Your task to perform on an android device: Play the latest video from the New York Times Image 0: 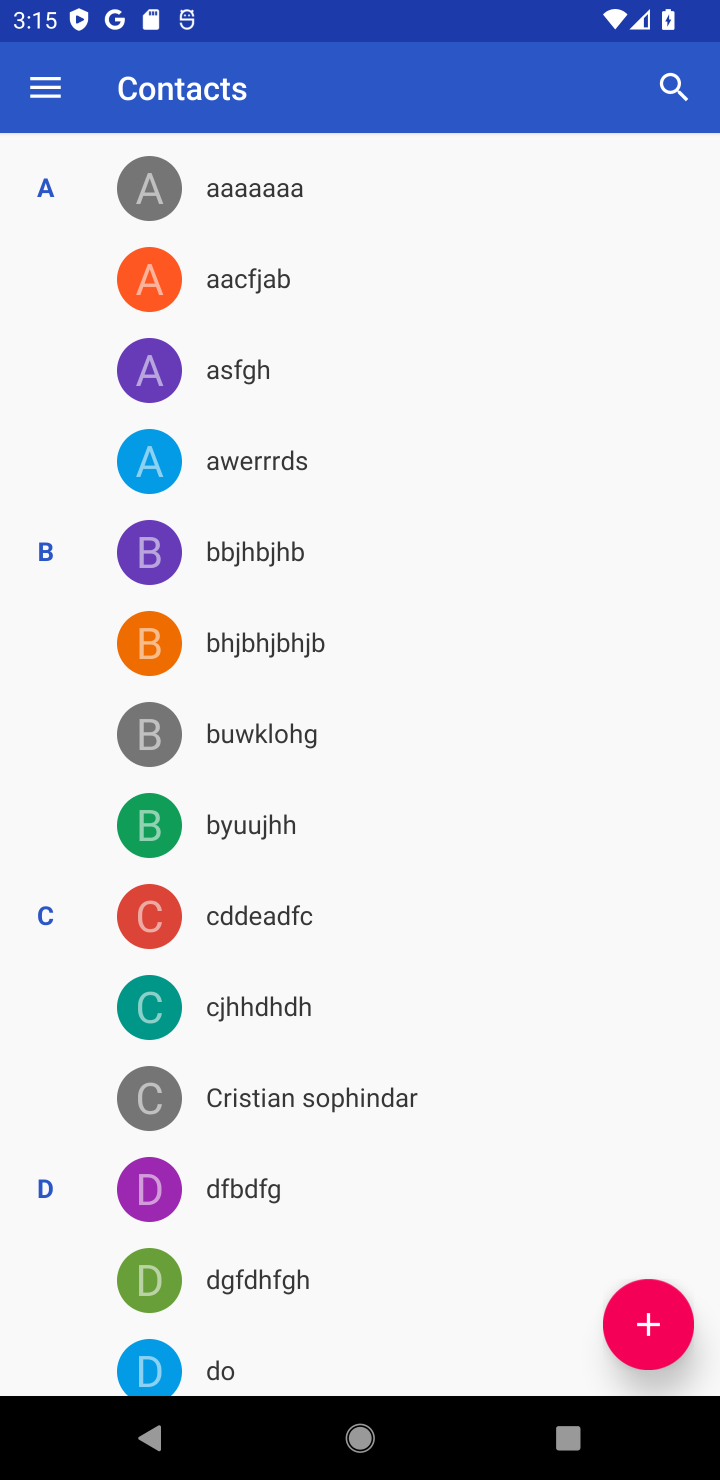
Step 0: press home button
Your task to perform on an android device: Play the latest video from the New York Times Image 1: 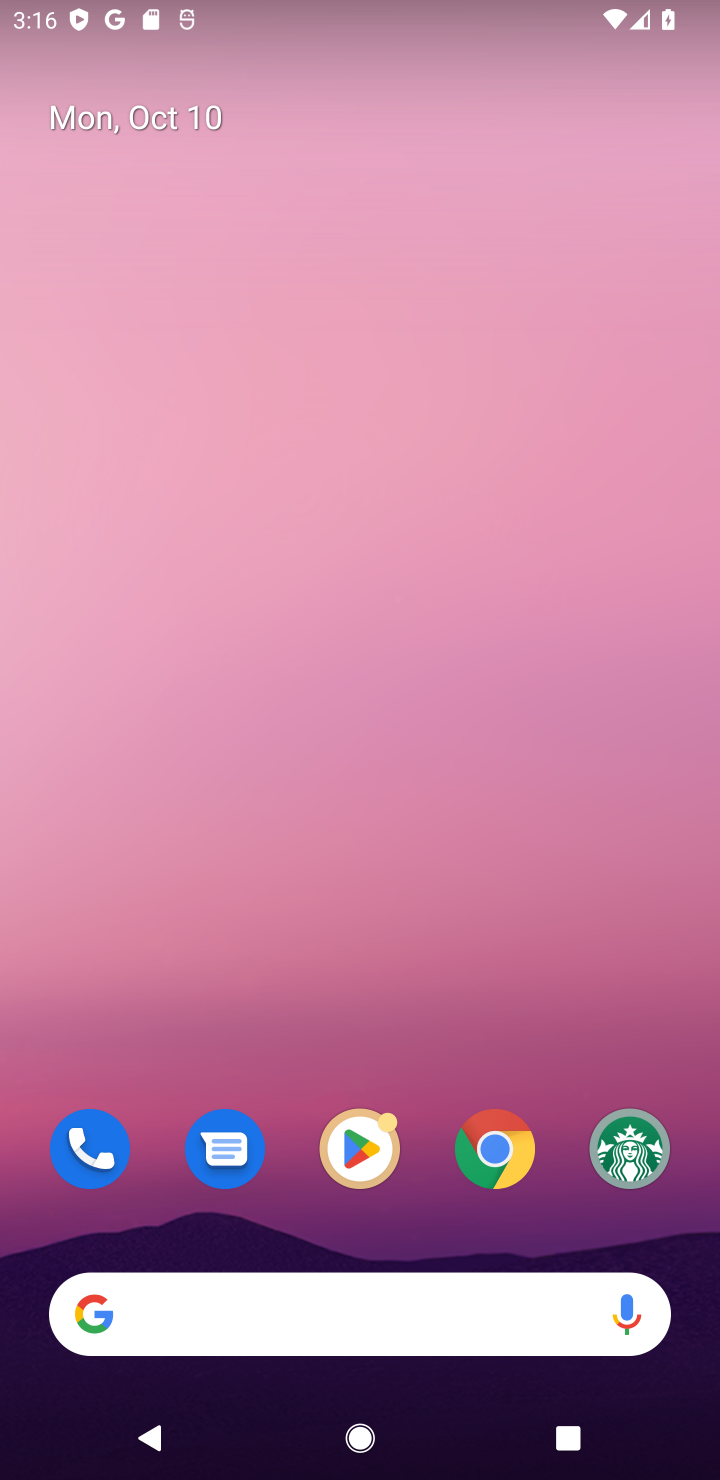
Step 1: click (176, 1288)
Your task to perform on an android device: Play the latest video from the New York Times Image 2: 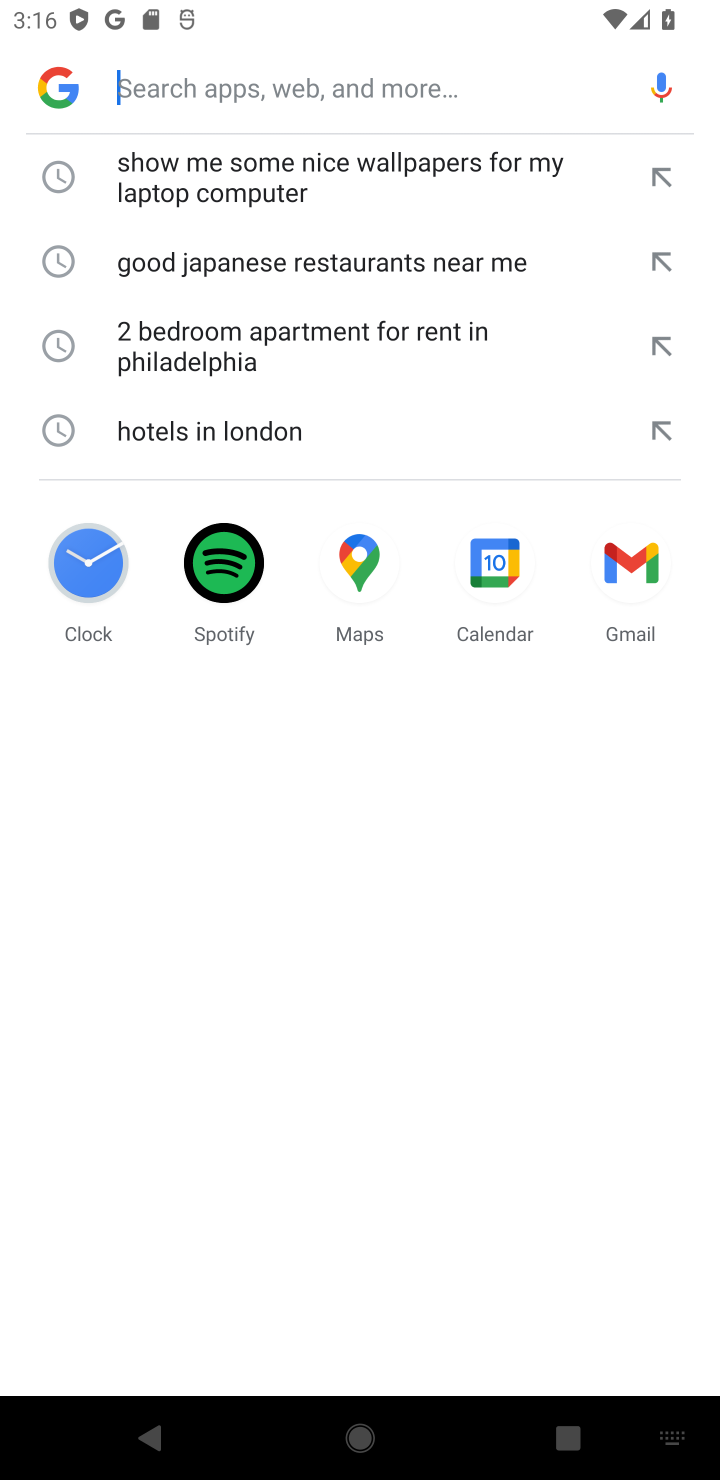
Step 2: type " latest video from the New York Times"
Your task to perform on an android device: Play the latest video from the New York Times Image 3: 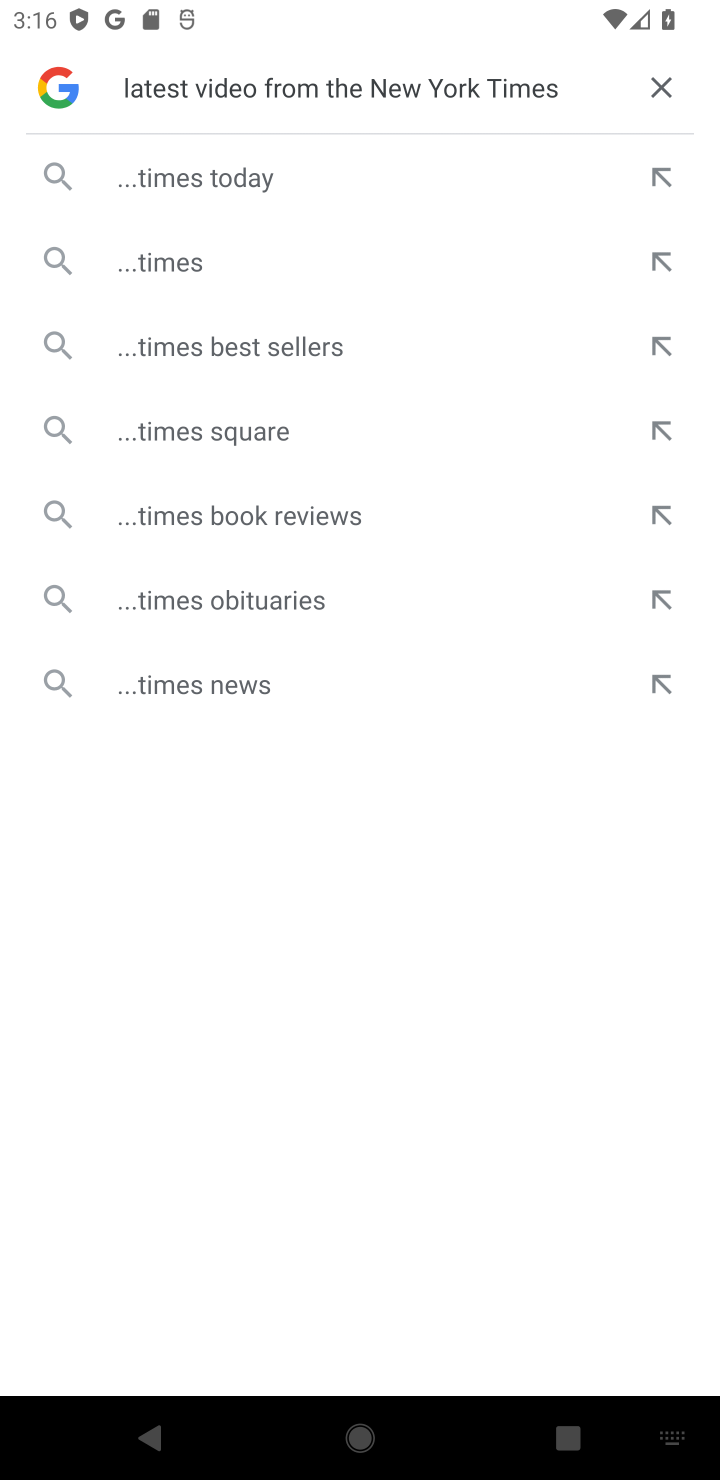
Step 3: click (395, 187)
Your task to perform on an android device: Play the latest video from the New York Times Image 4: 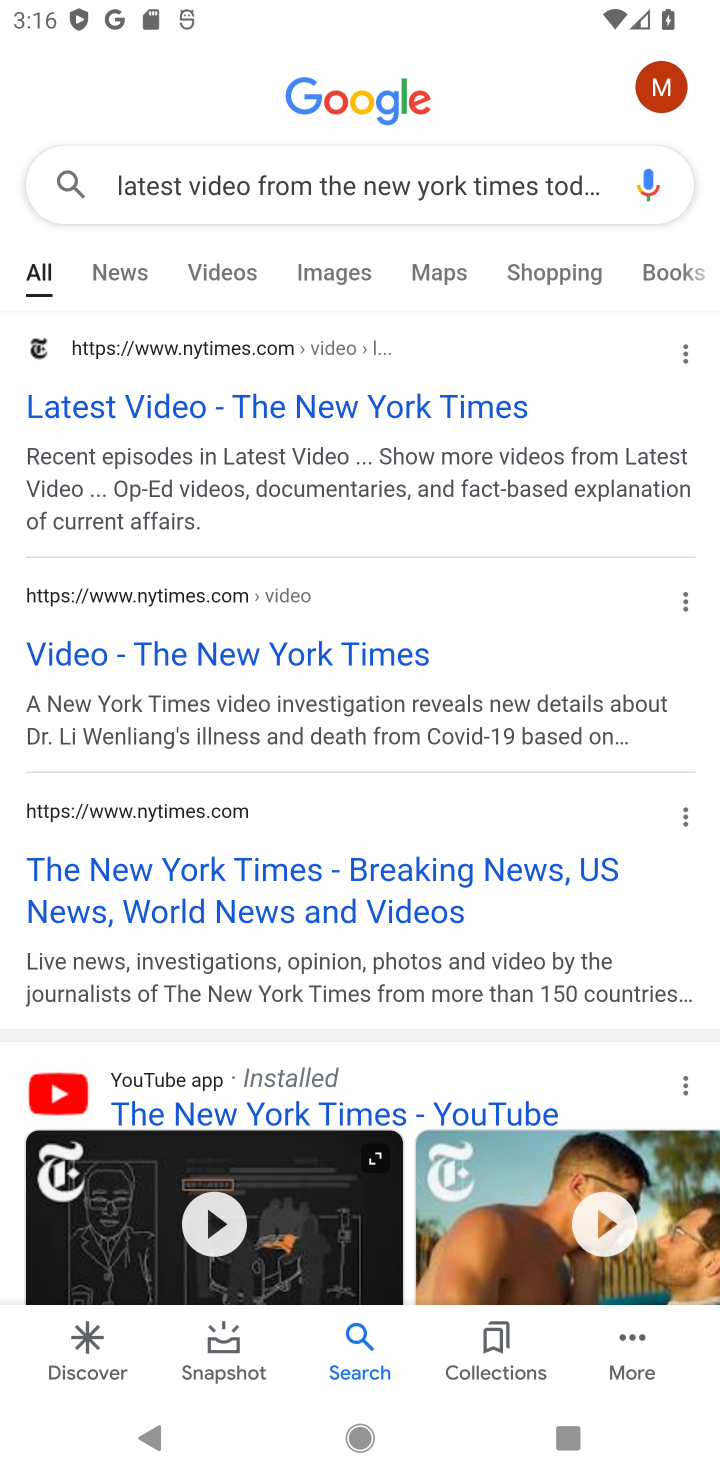
Step 4: click (425, 395)
Your task to perform on an android device: Play the latest video from the New York Times Image 5: 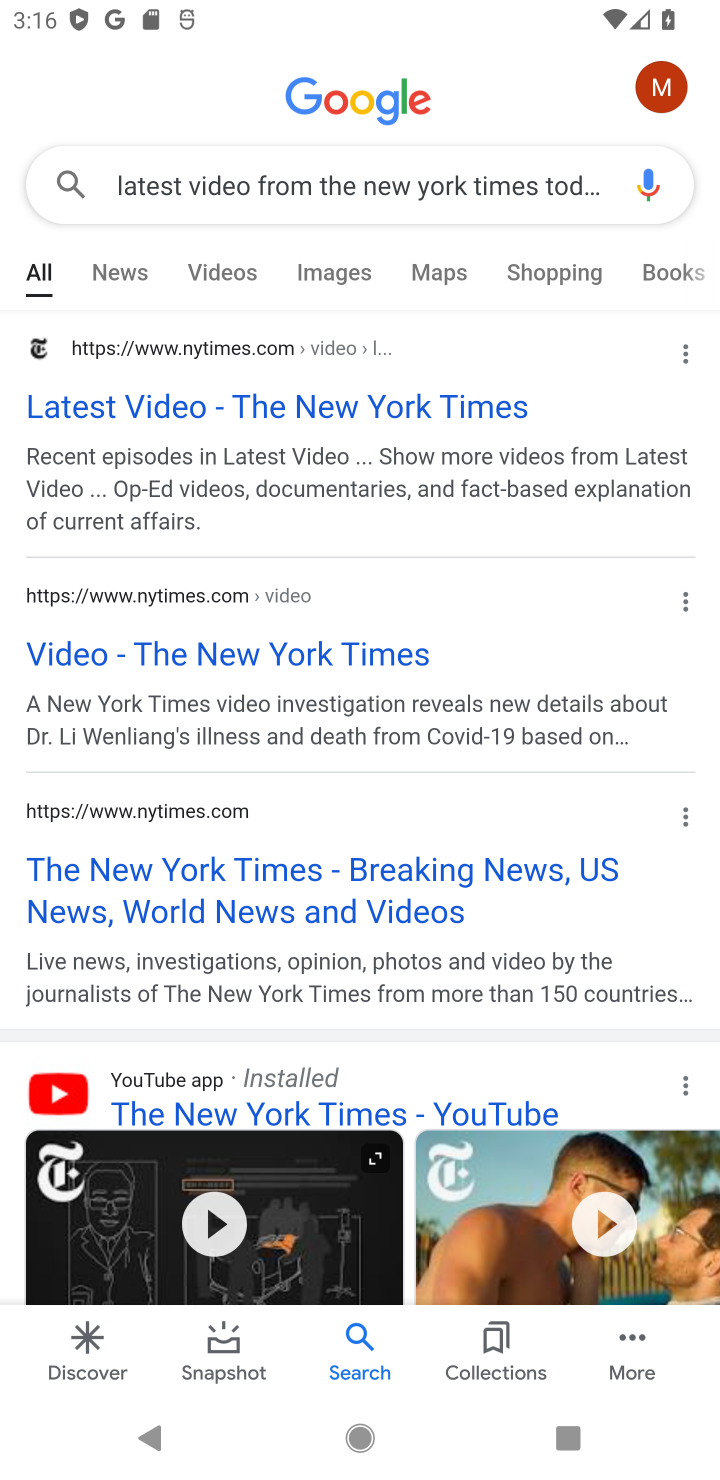
Step 5: task complete